Your task to perform on an android device: Open privacy settings Image 0: 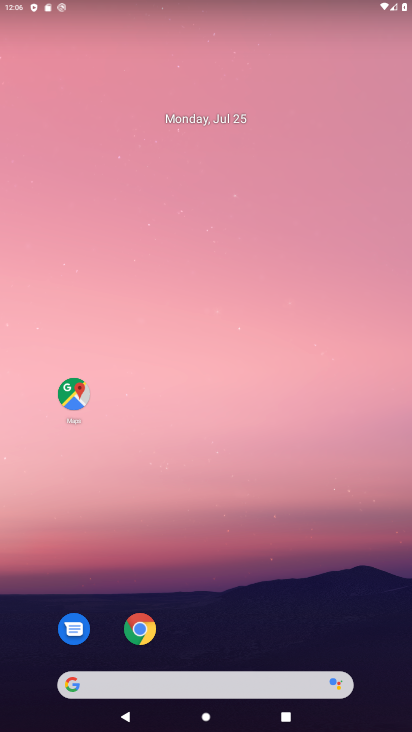
Step 0: drag from (247, 626) to (236, 43)
Your task to perform on an android device: Open privacy settings Image 1: 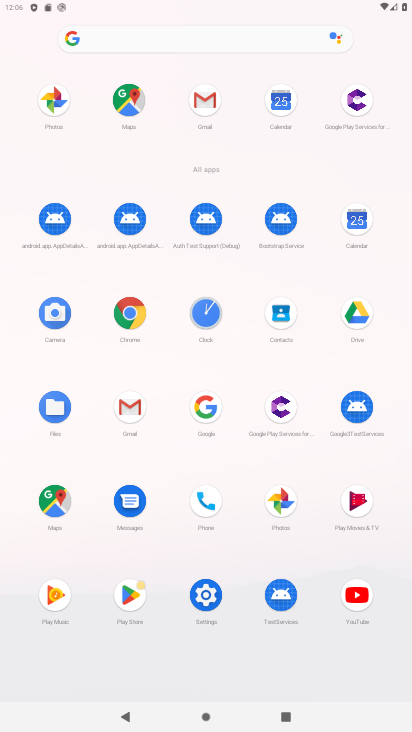
Step 1: click (214, 611)
Your task to perform on an android device: Open privacy settings Image 2: 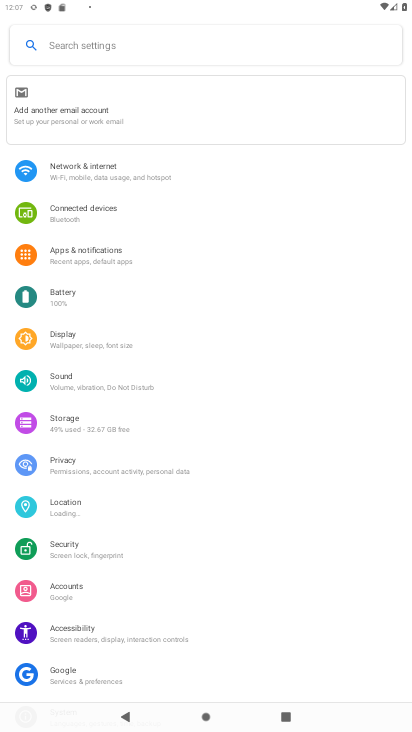
Step 2: click (117, 474)
Your task to perform on an android device: Open privacy settings Image 3: 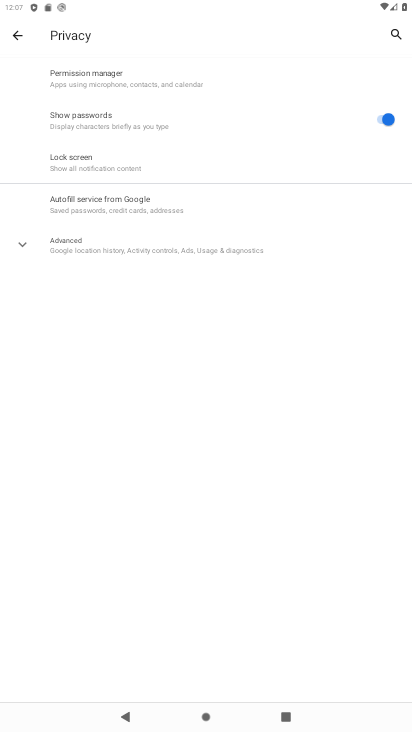
Step 3: task complete